Your task to perform on an android device: change the upload size in google photos Image 0: 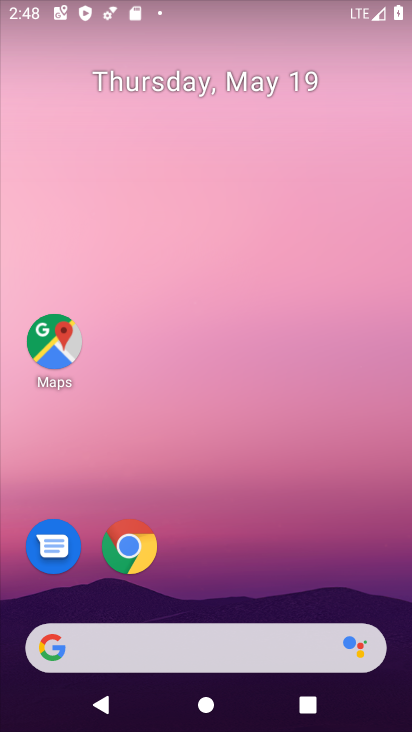
Step 0: drag from (150, 650) to (300, 155)
Your task to perform on an android device: change the upload size in google photos Image 1: 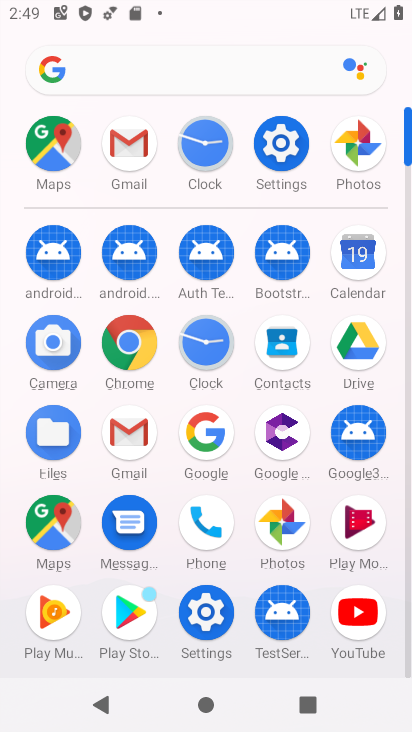
Step 1: click (284, 520)
Your task to perform on an android device: change the upload size in google photos Image 2: 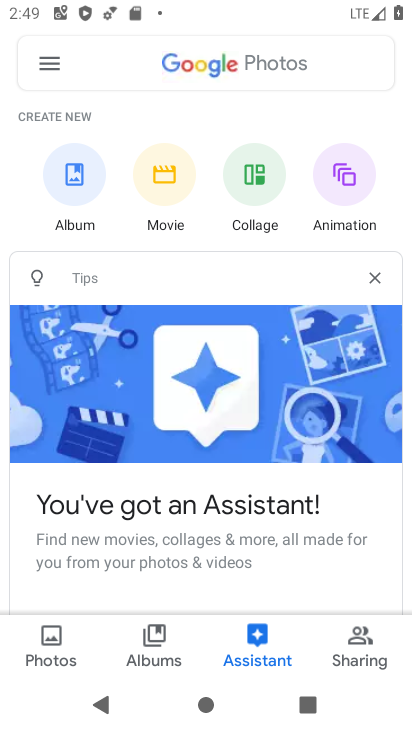
Step 2: click (47, 58)
Your task to perform on an android device: change the upload size in google photos Image 3: 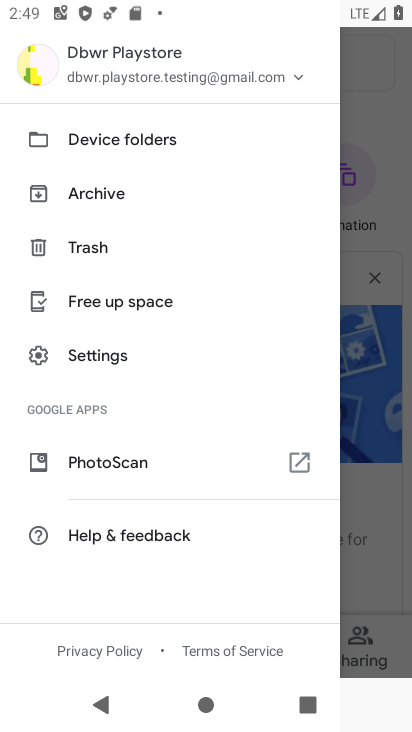
Step 3: click (99, 348)
Your task to perform on an android device: change the upload size in google photos Image 4: 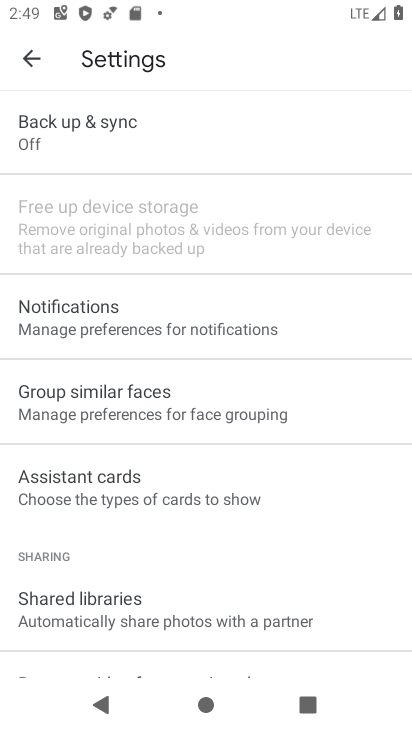
Step 4: click (142, 147)
Your task to perform on an android device: change the upload size in google photos Image 5: 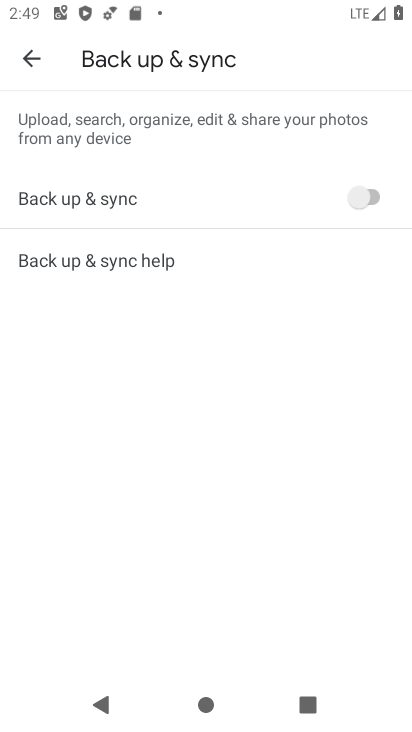
Step 5: click (371, 200)
Your task to perform on an android device: change the upload size in google photos Image 6: 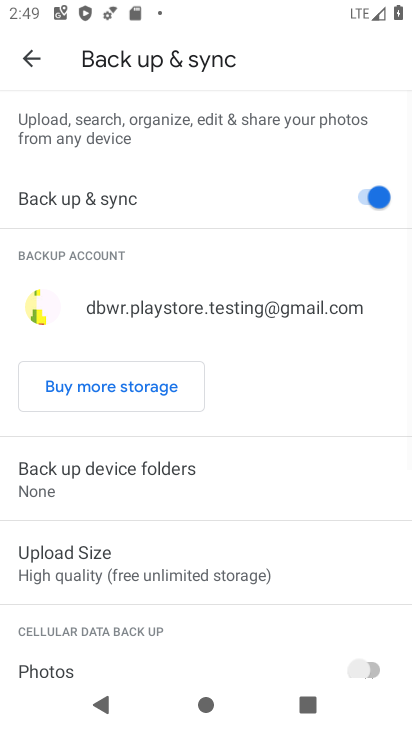
Step 6: click (96, 563)
Your task to perform on an android device: change the upload size in google photos Image 7: 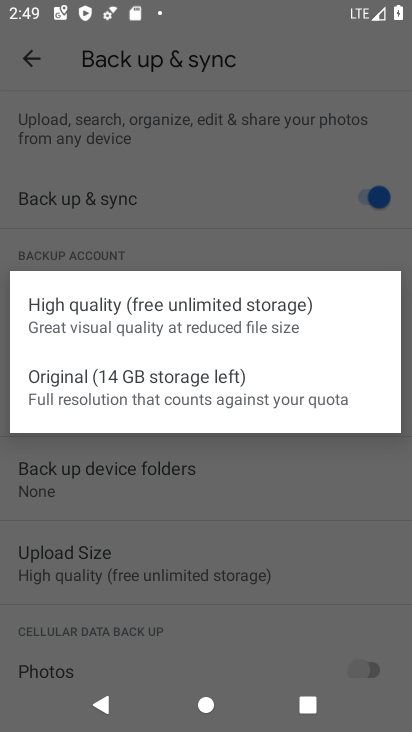
Step 7: click (96, 382)
Your task to perform on an android device: change the upload size in google photos Image 8: 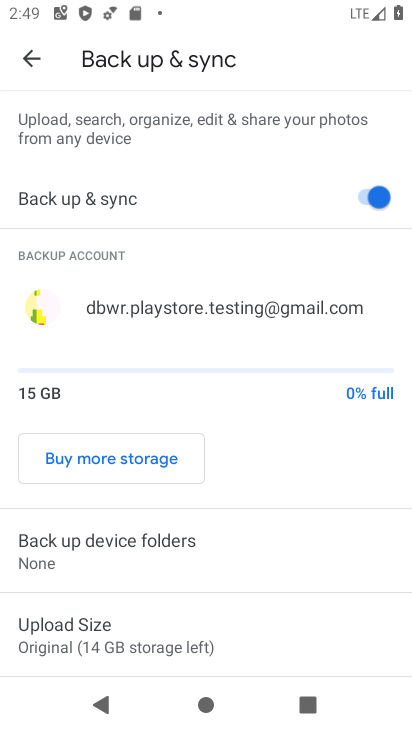
Step 8: task complete